Your task to perform on an android device: Go to Wikipedia Image 0: 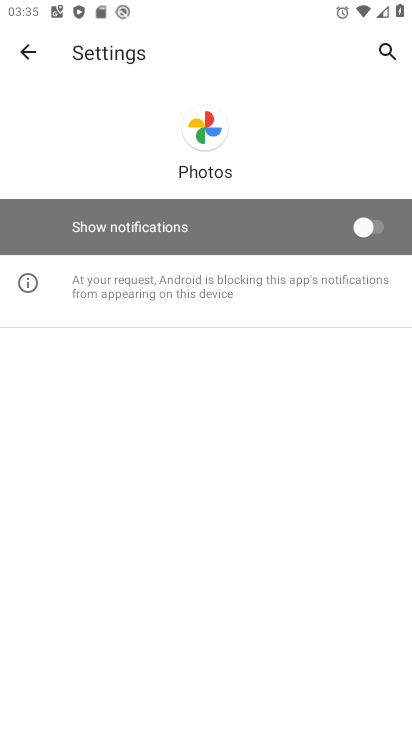
Step 0: press home button
Your task to perform on an android device: Go to Wikipedia Image 1: 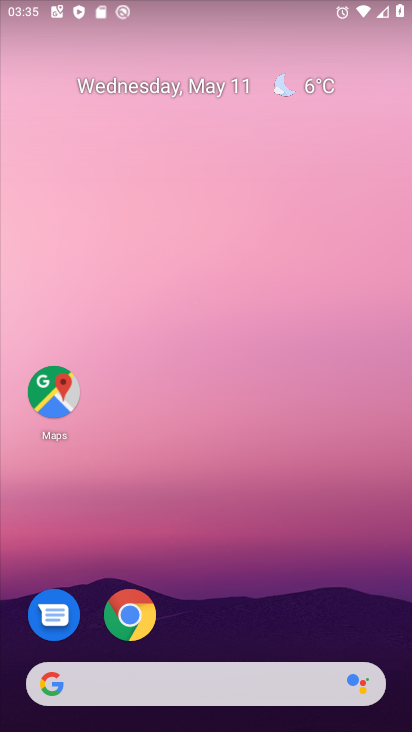
Step 1: click (133, 602)
Your task to perform on an android device: Go to Wikipedia Image 2: 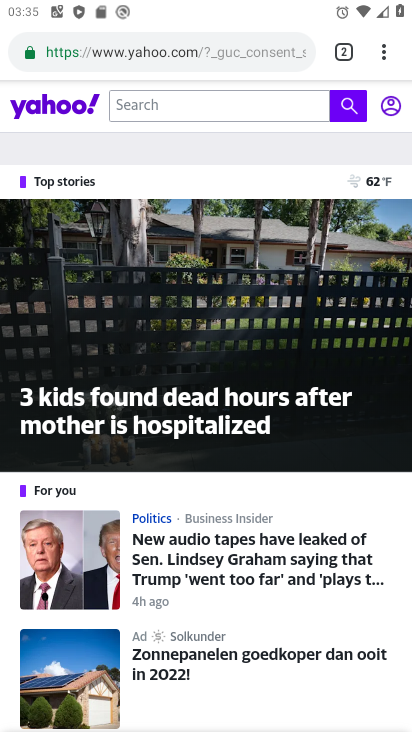
Step 2: click (216, 49)
Your task to perform on an android device: Go to Wikipedia Image 3: 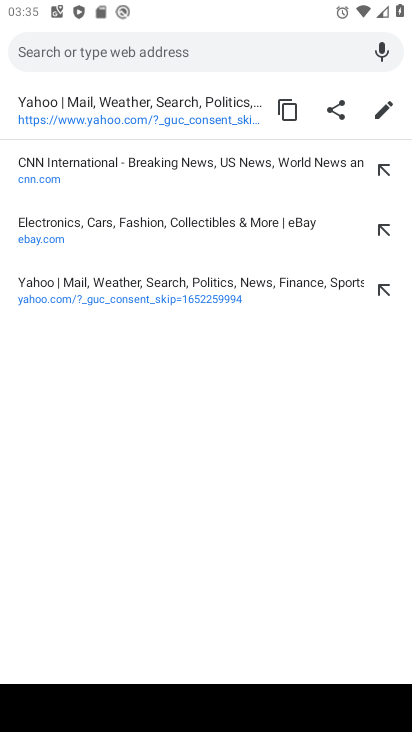
Step 3: type "wikipedia"
Your task to perform on an android device: Go to Wikipedia Image 4: 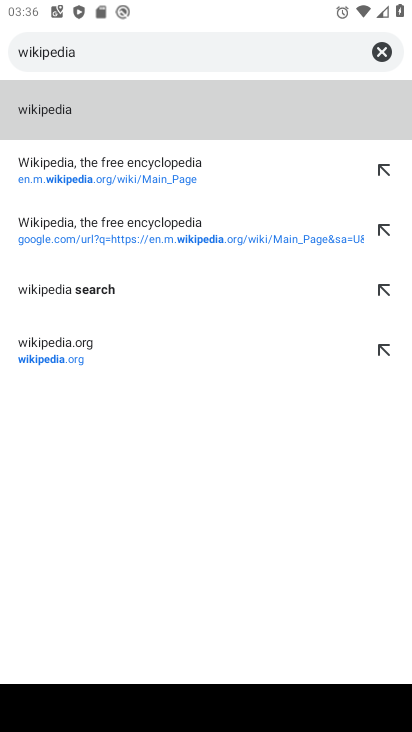
Step 4: click (46, 112)
Your task to perform on an android device: Go to Wikipedia Image 5: 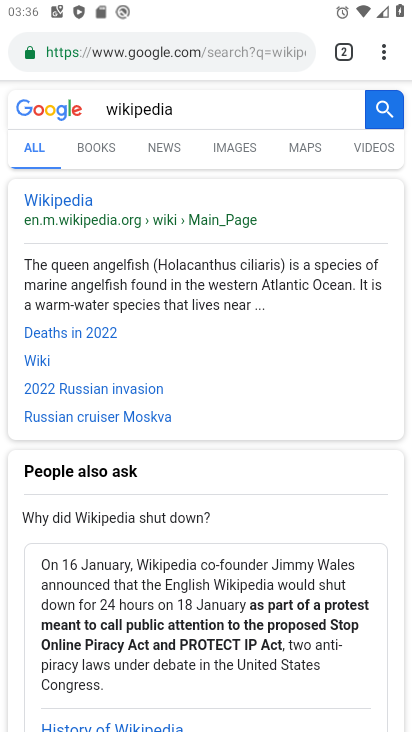
Step 5: click (86, 199)
Your task to perform on an android device: Go to Wikipedia Image 6: 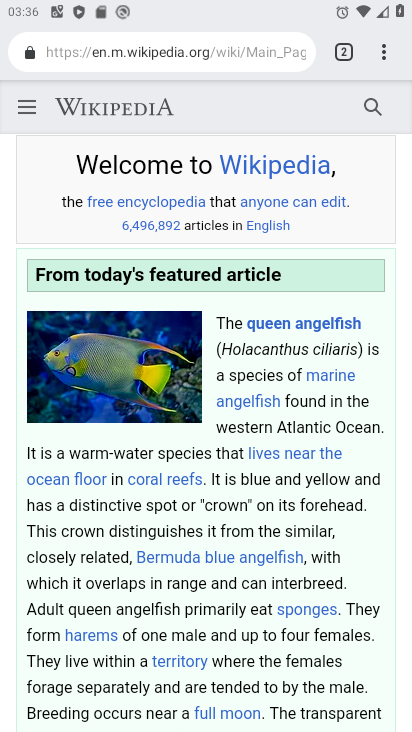
Step 6: task complete